Your task to perform on an android device: turn on notifications settings in the gmail app Image 0: 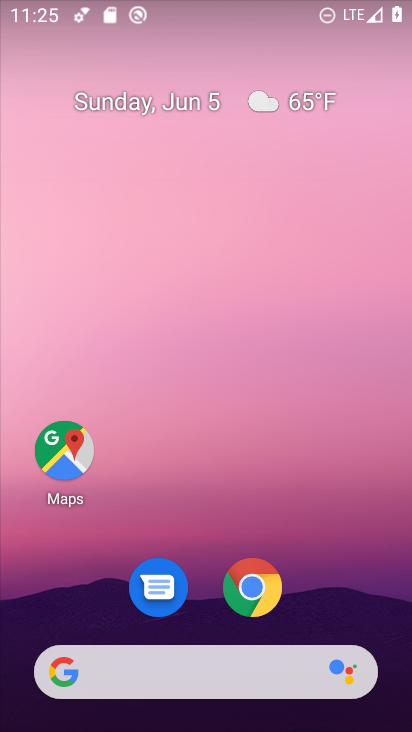
Step 0: drag from (201, 616) to (232, 95)
Your task to perform on an android device: turn on notifications settings in the gmail app Image 1: 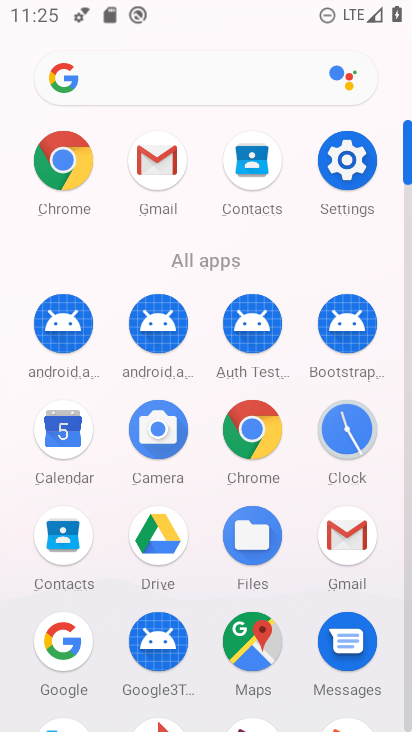
Step 1: click (363, 173)
Your task to perform on an android device: turn on notifications settings in the gmail app Image 2: 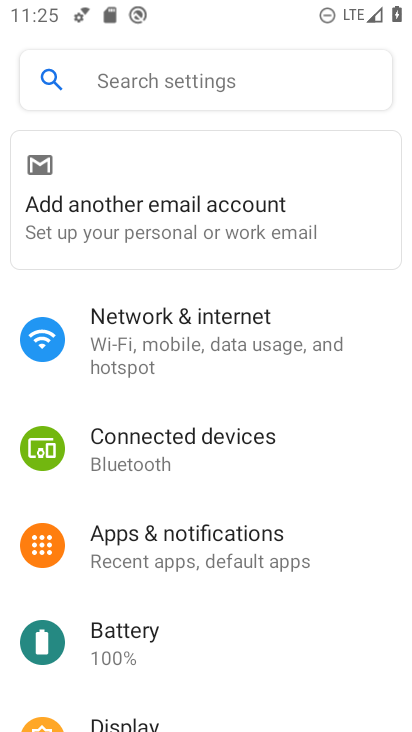
Step 2: click (131, 554)
Your task to perform on an android device: turn on notifications settings in the gmail app Image 3: 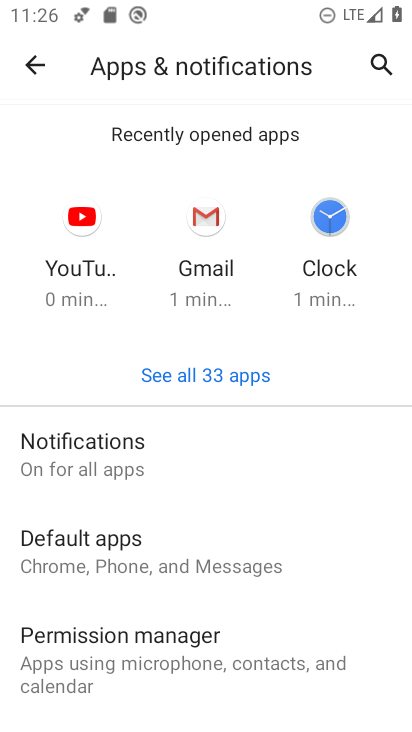
Step 3: click (178, 466)
Your task to perform on an android device: turn on notifications settings in the gmail app Image 4: 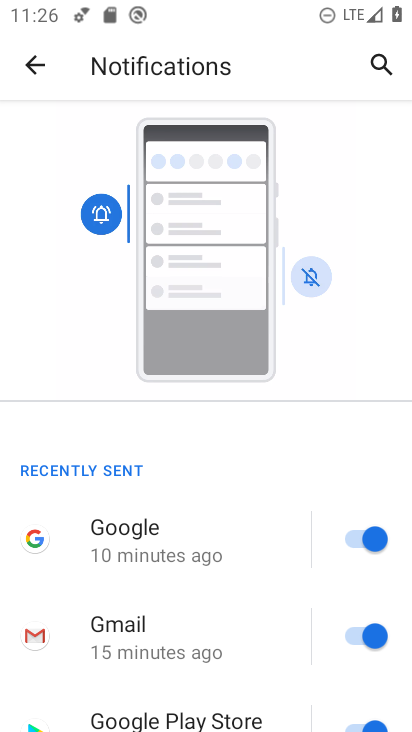
Step 4: drag from (112, 645) to (111, 223)
Your task to perform on an android device: turn on notifications settings in the gmail app Image 5: 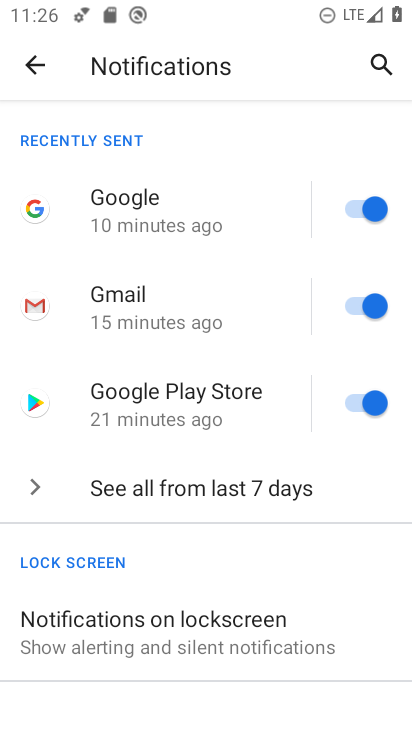
Step 5: drag from (138, 630) to (185, 418)
Your task to perform on an android device: turn on notifications settings in the gmail app Image 6: 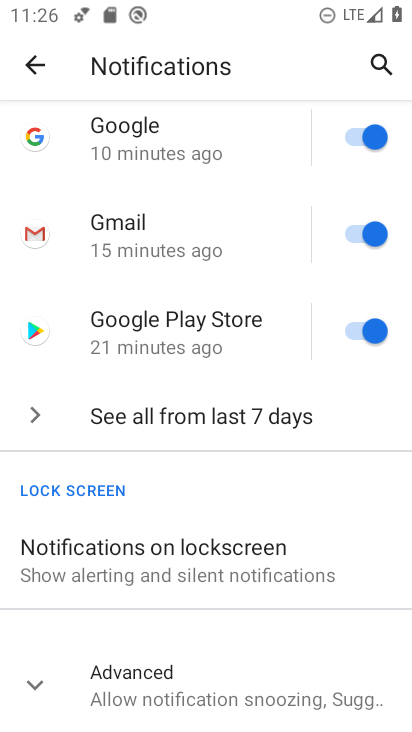
Step 6: click (98, 254)
Your task to perform on an android device: turn on notifications settings in the gmail app Image 7: 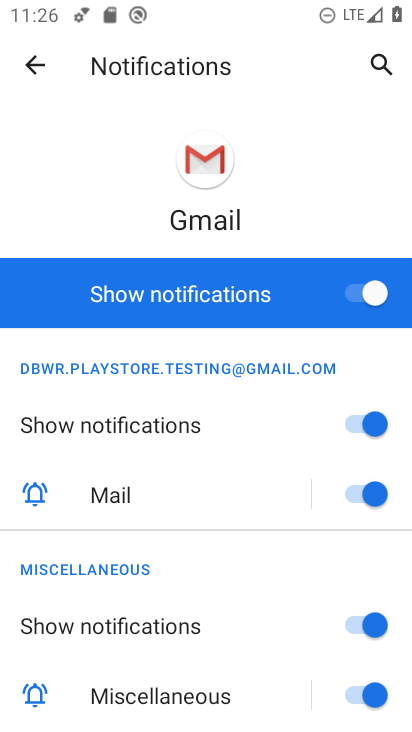
Step 7: task complete